Your task to perform on an android device: Show the shopping cart on ebay.com. Add "razer blade" to the cart on ebay.com Image 0: 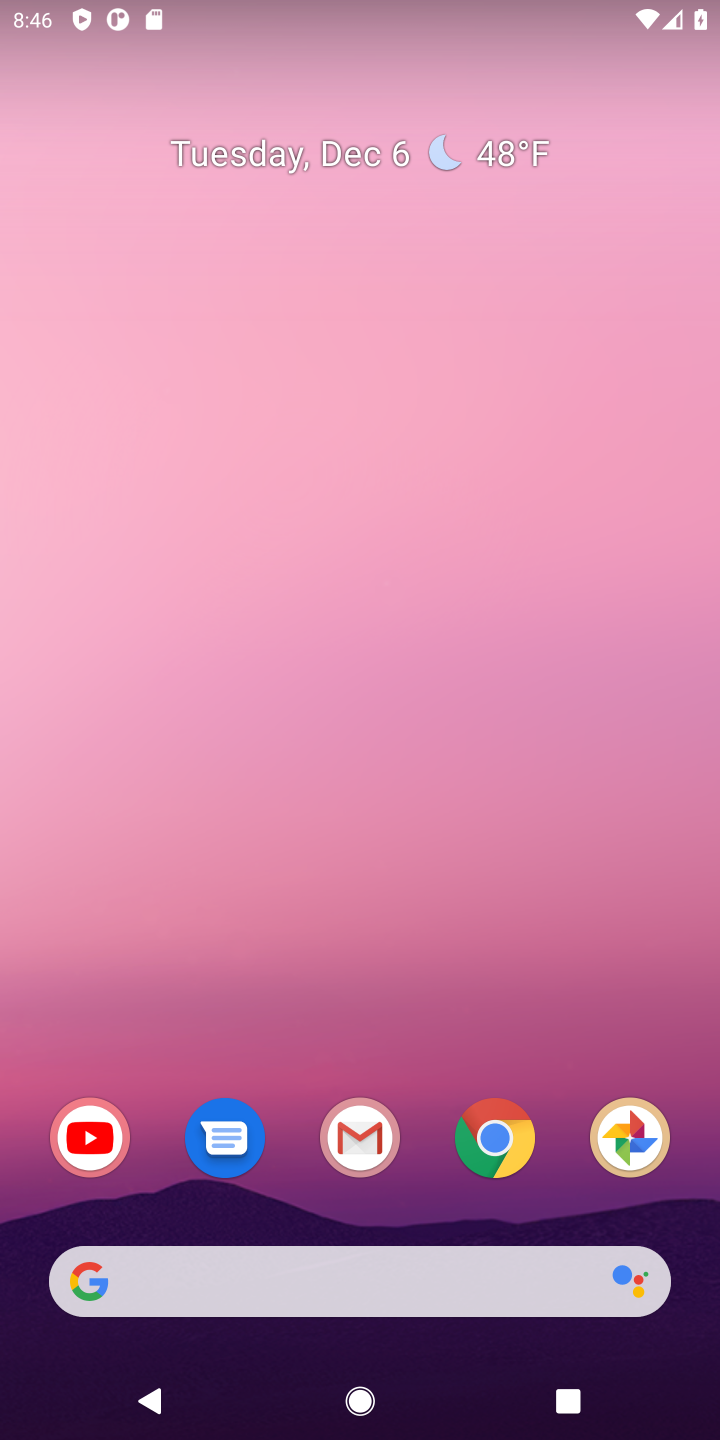
Step 0: click (498, 1141)
Your task to perform on an android device: Show the shopping cart on ebay.com. Add "razer blade" to the cart on ebay.com Image 1: 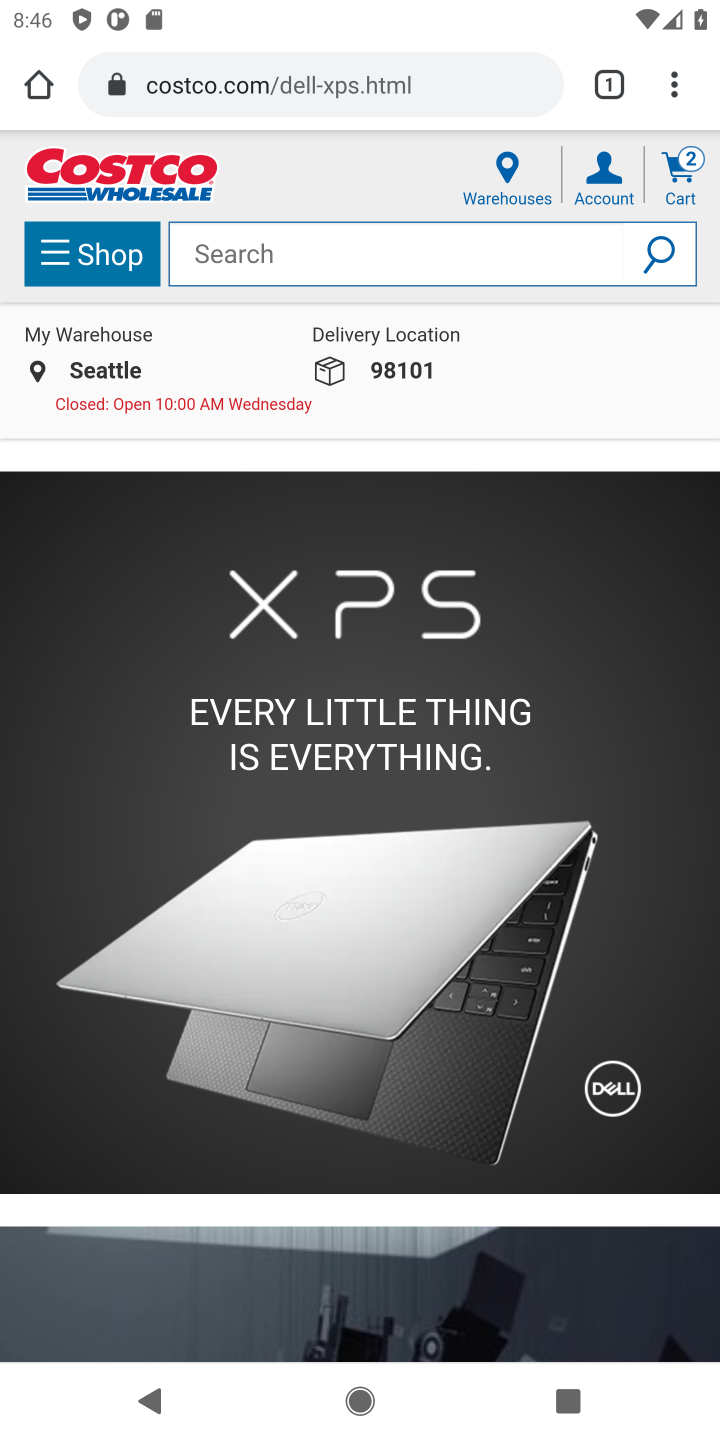
Step 1: click (317, 87)
Your task to perform on an android device: Show the shopping cart on ebay.com. Add "razer blade" to the cart on ebay.com Image 2: 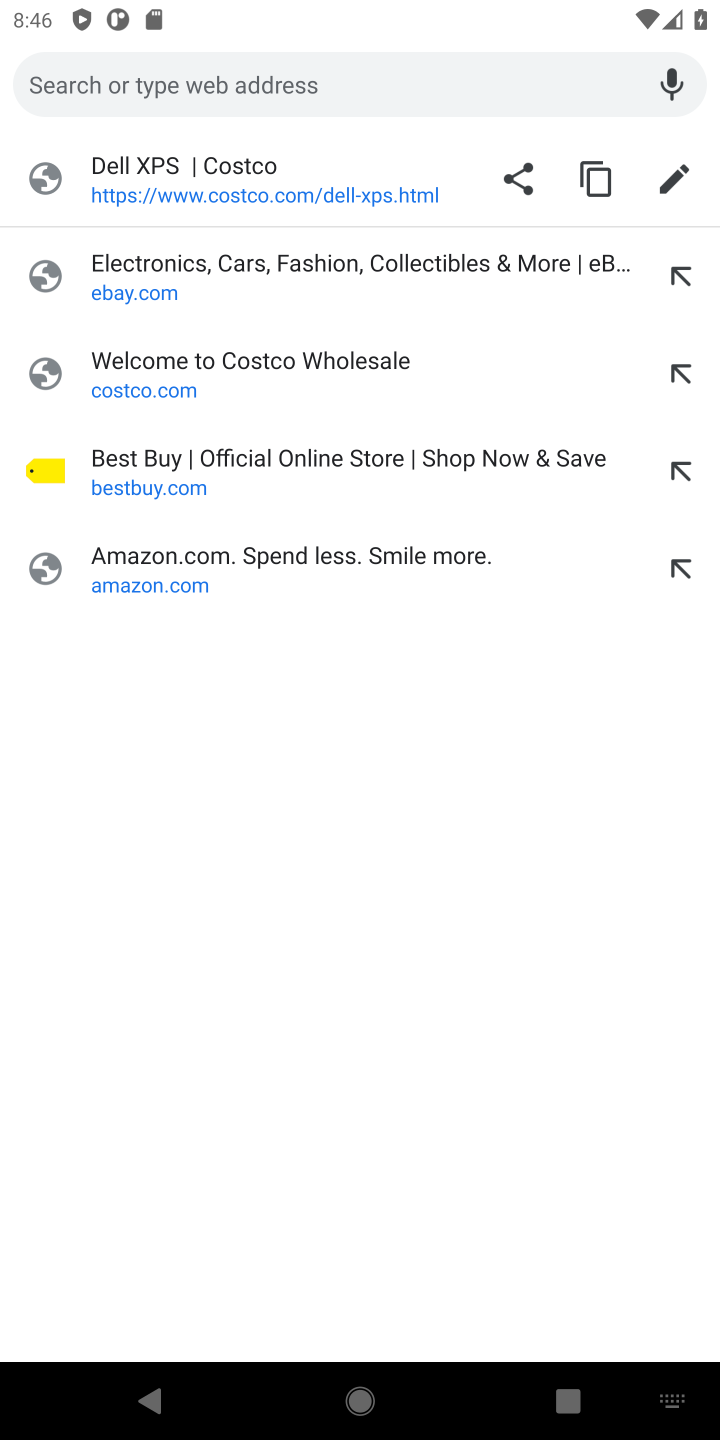
Step 2: click (138, 288)
Your task to perform on an android device: Show the shopping cart on ebay.com. Add "razer blade" to the cart on ebay.com Image 3: 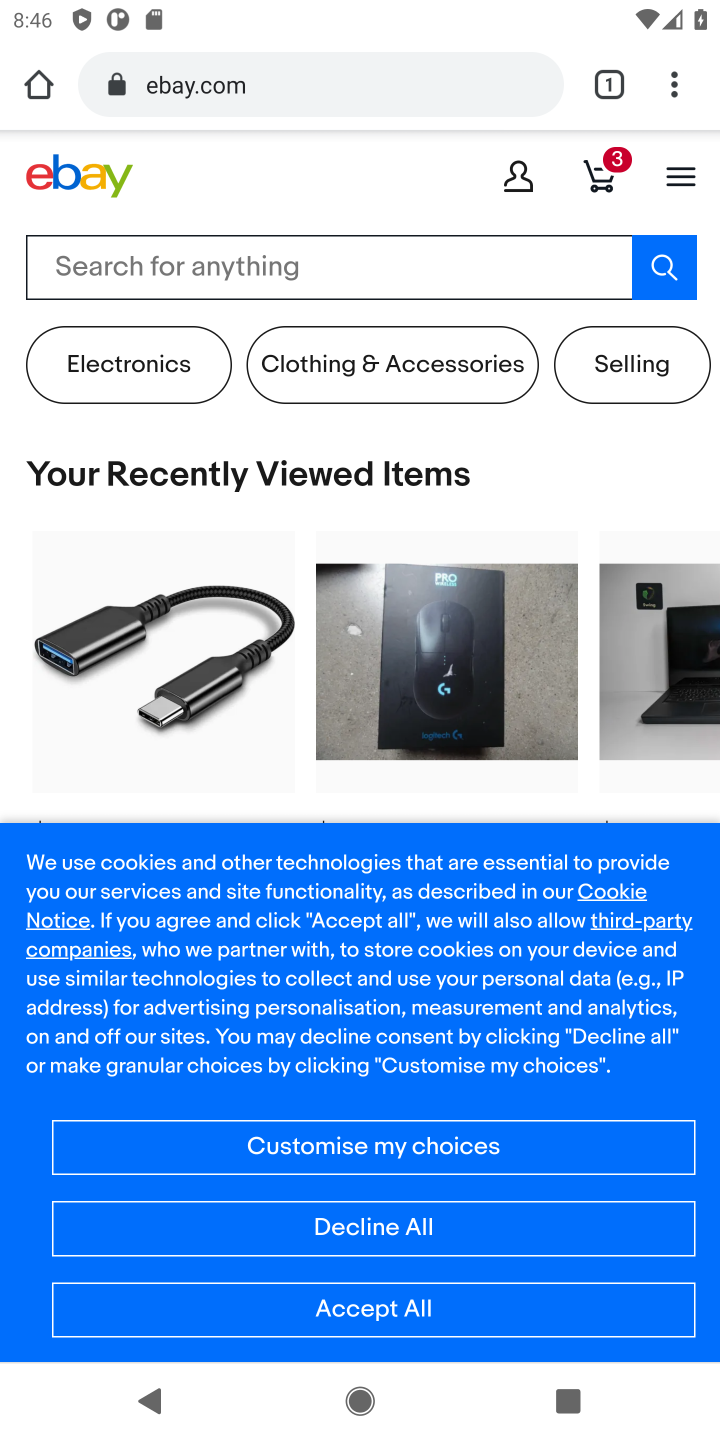
Step 3: click (607, 185)
Your task to perform on an android device: Show the shopping cart on ebay.com. Add "razer blade" to the cart on ebay.com Image 4: 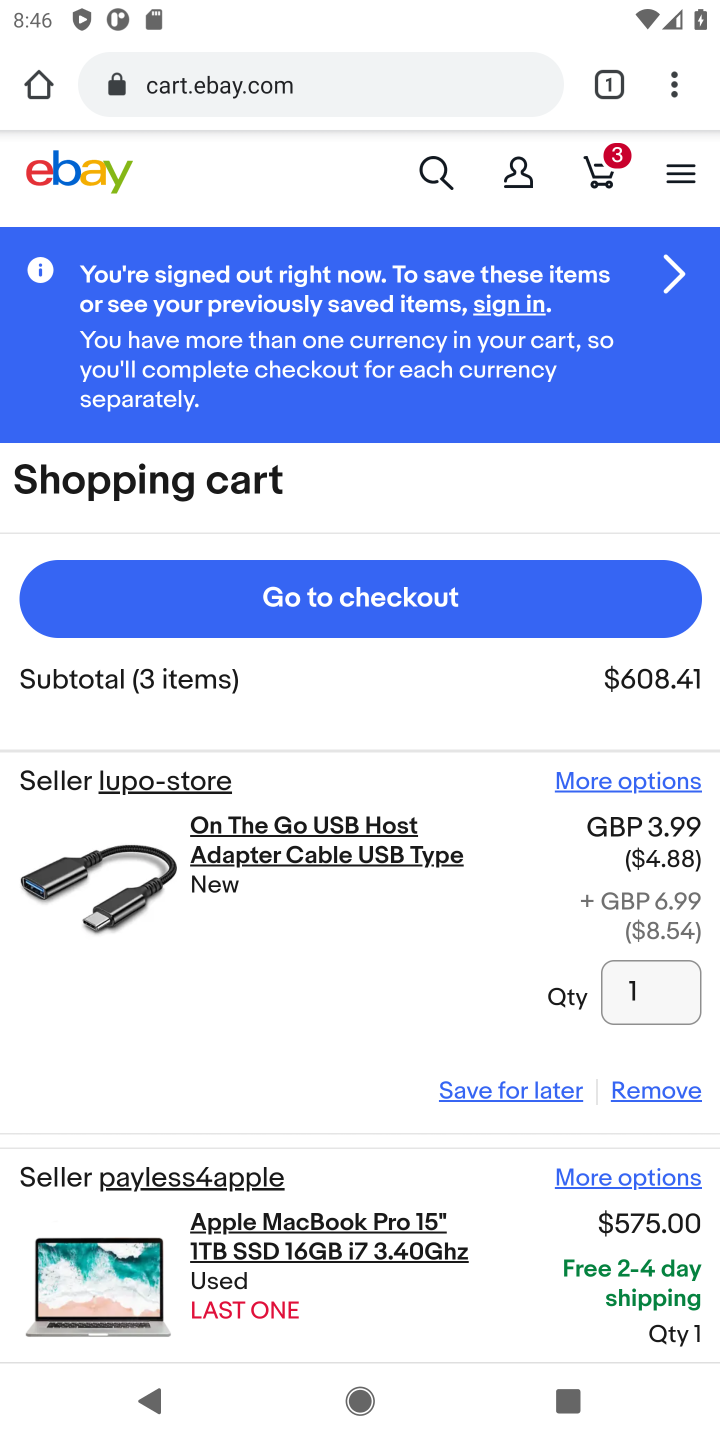
Step 4: click (437, 159)
Your task to perform on an android device: Show the shopping cart on ebay.com. Add "razer blade" to the cart on ebay.com Image 5: 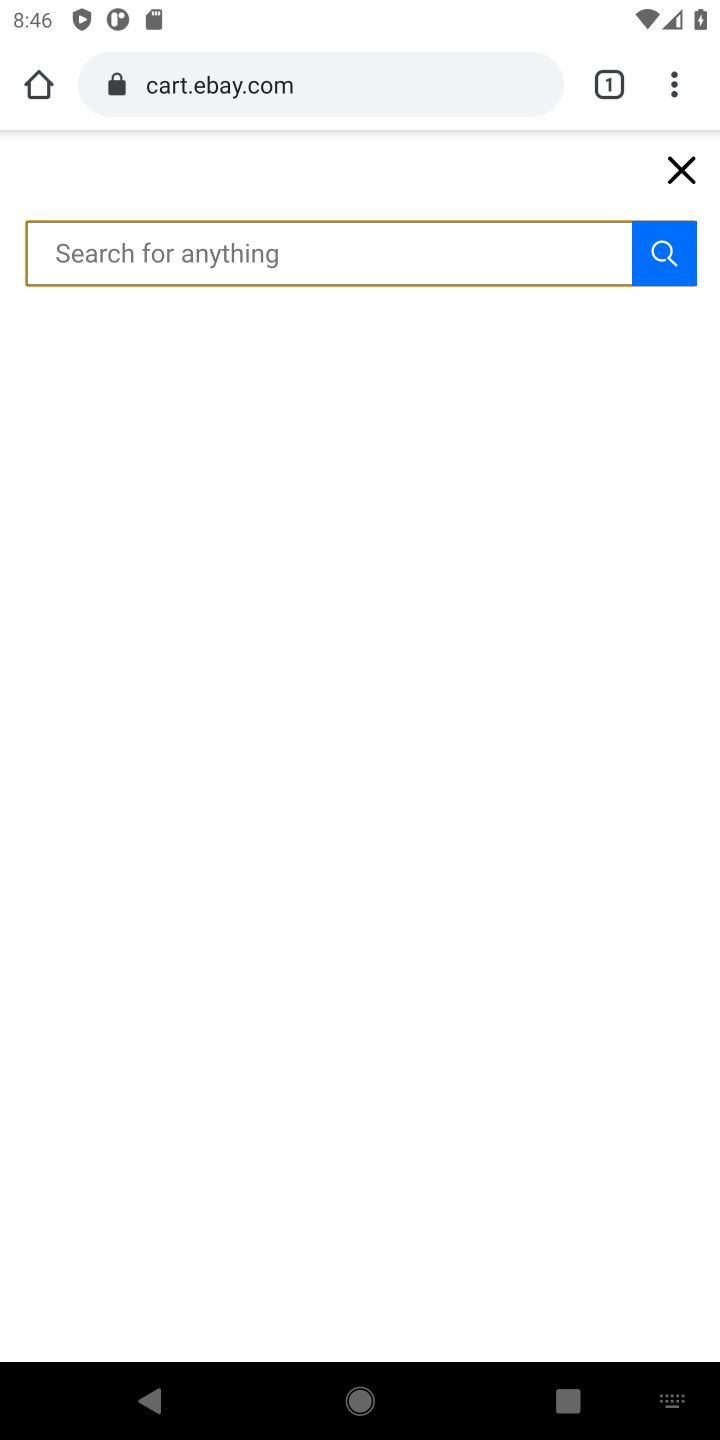
Step 5: type "razer blade"
Your task to perform on an android device: Show the shopping cart on ebay.com. Add "razer blade" to the cart on ebay.com Image 6: 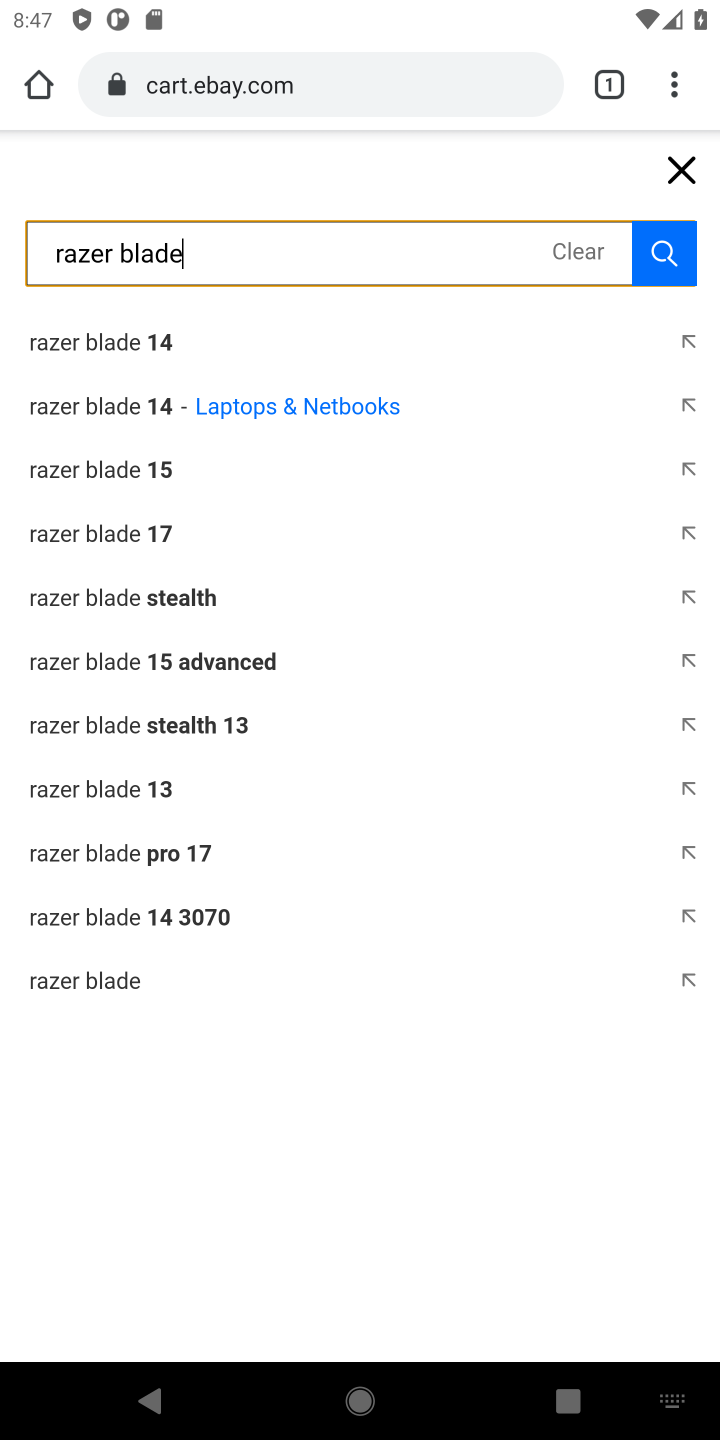
Step 6: click (116, 351)
Your task to perform on an android device: Show the shopping cart on ebay.com. Add "razer blade" to the cart on ebay.com Image 7: 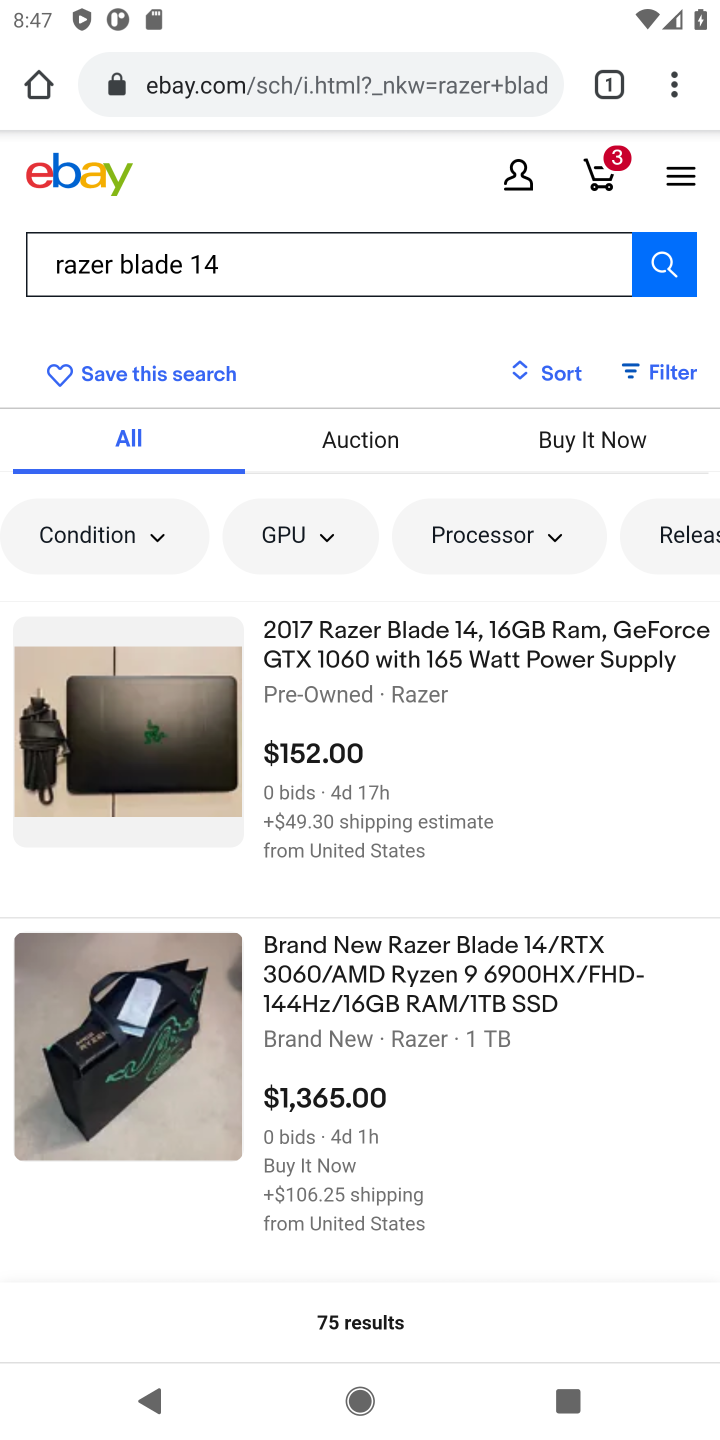
Step 7: click (335, 648)
Your task to perform on an android device: Show the shopping cart on ebay.com. Add "razer blade" to the cart on ebay.com Image 8: 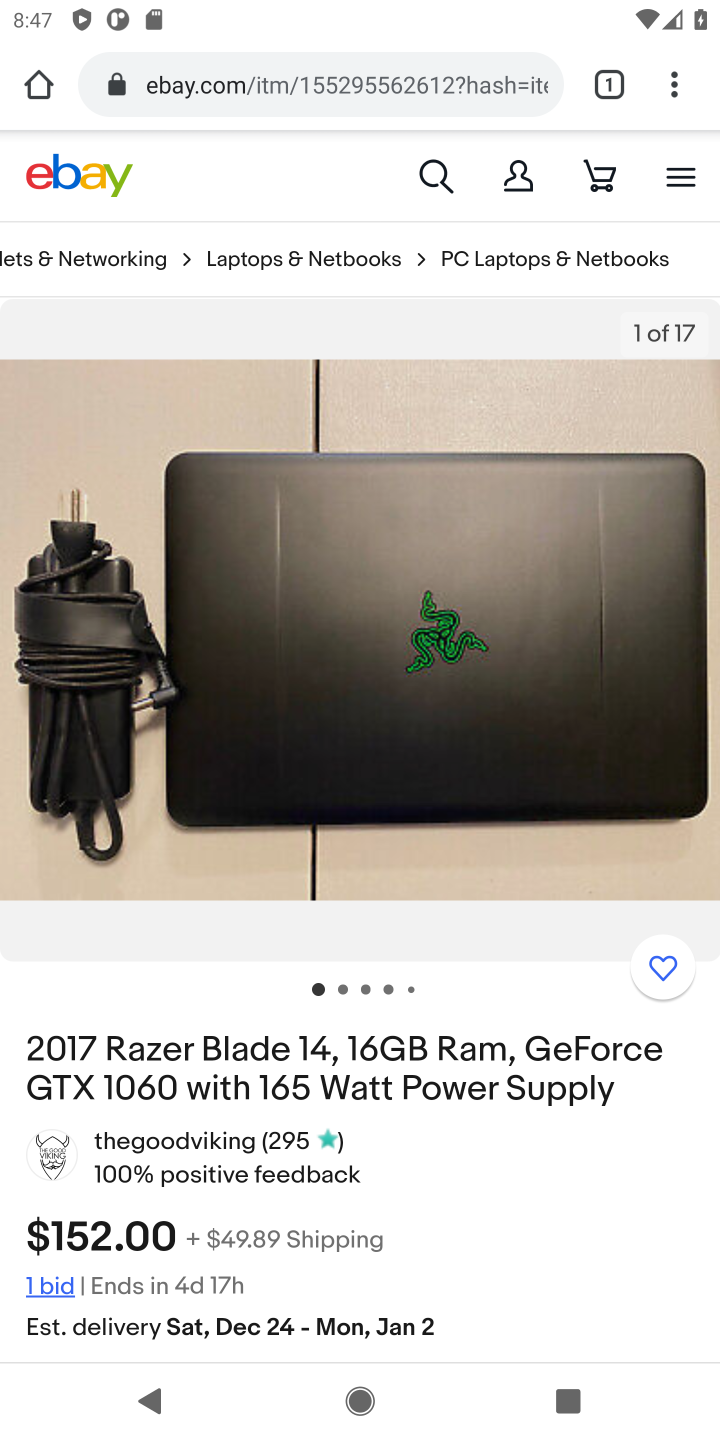
Step 8: drag from (411, 1143) to (369, 343)
Your task to perform on an android device: Show the shopping cart on ebay.com. Add "razer blade" to the cart on ebay.com Image 9: 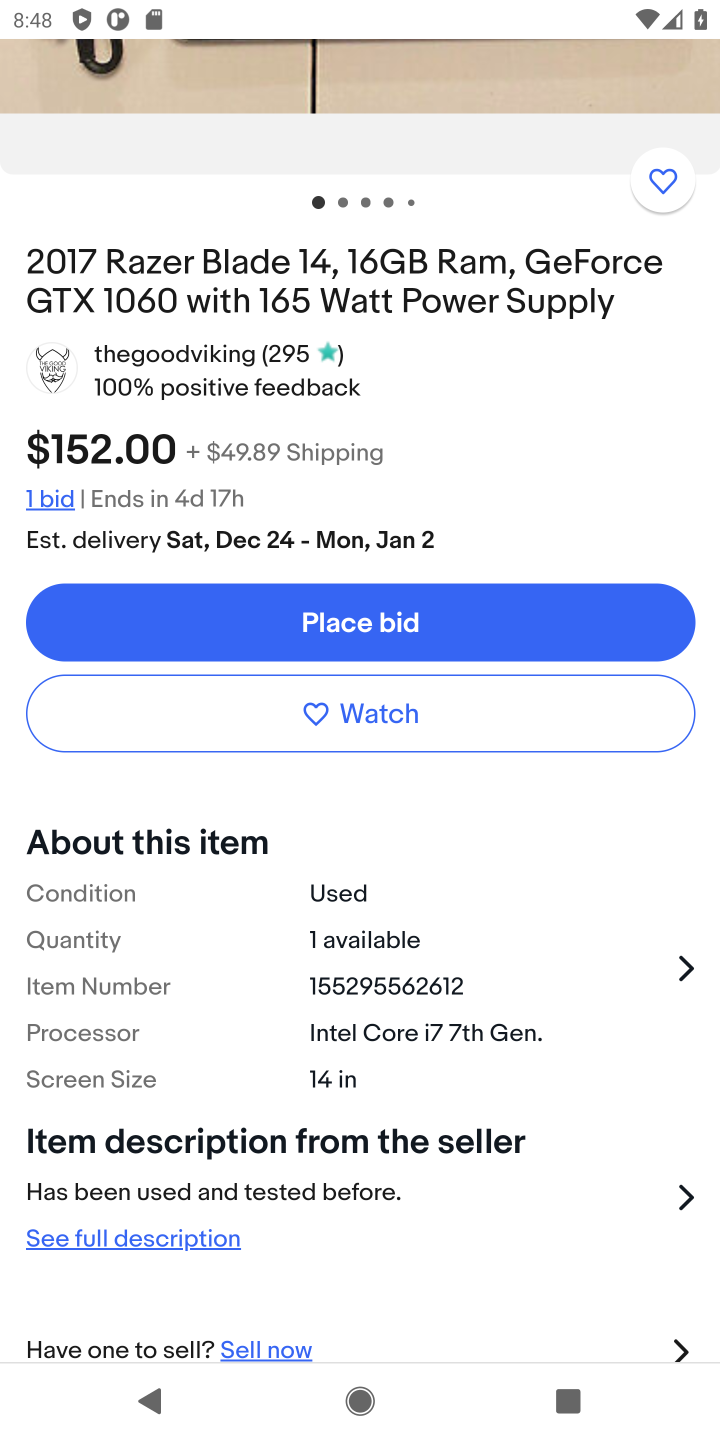
Step 9: press back button
Your task to perform on an android device: Show the shopping cart on ebay.com. Add "razer blade" to the cart on ebay.com Image 10: 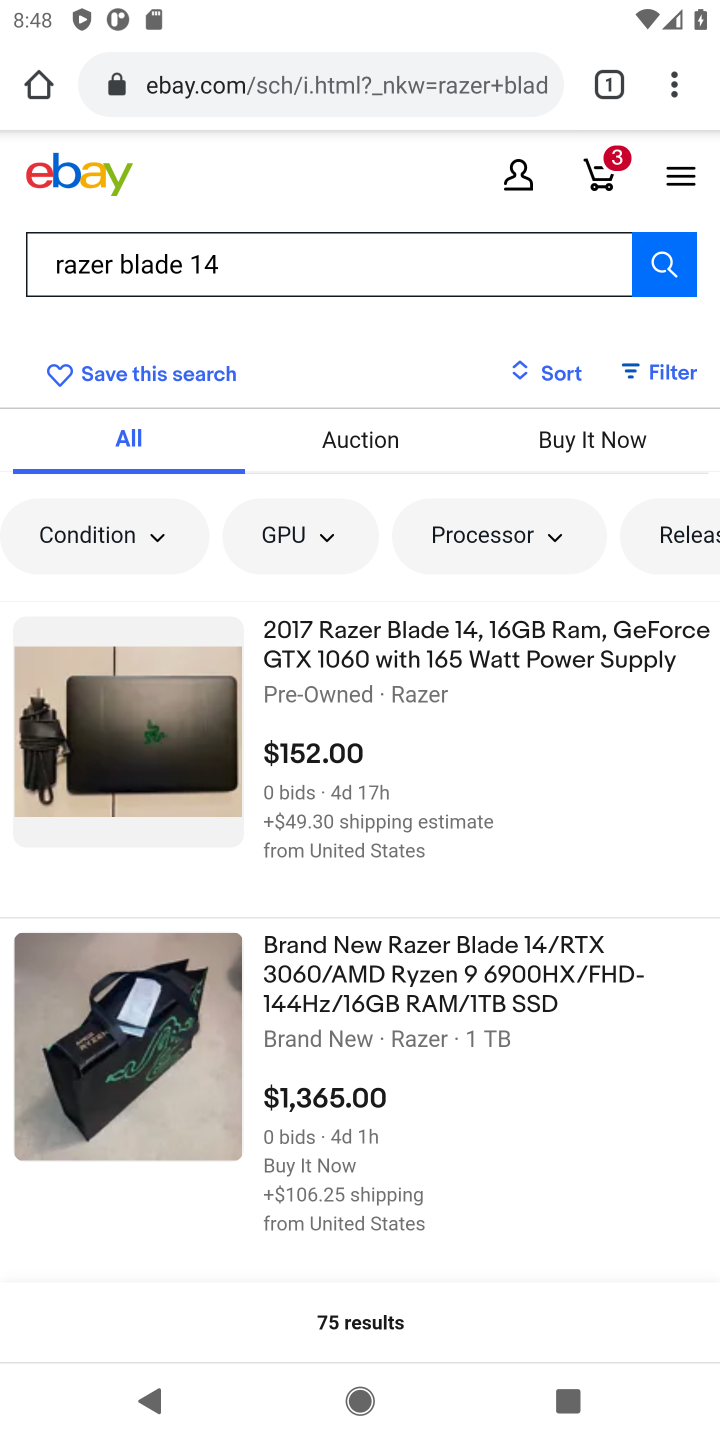
Step 10: drag from (425, 1108) to (389, 475)
Your task to perform on an android device: Show the shopping cart on ebay.com. Add "razer blade" to the cart on ebay.com Image 11: 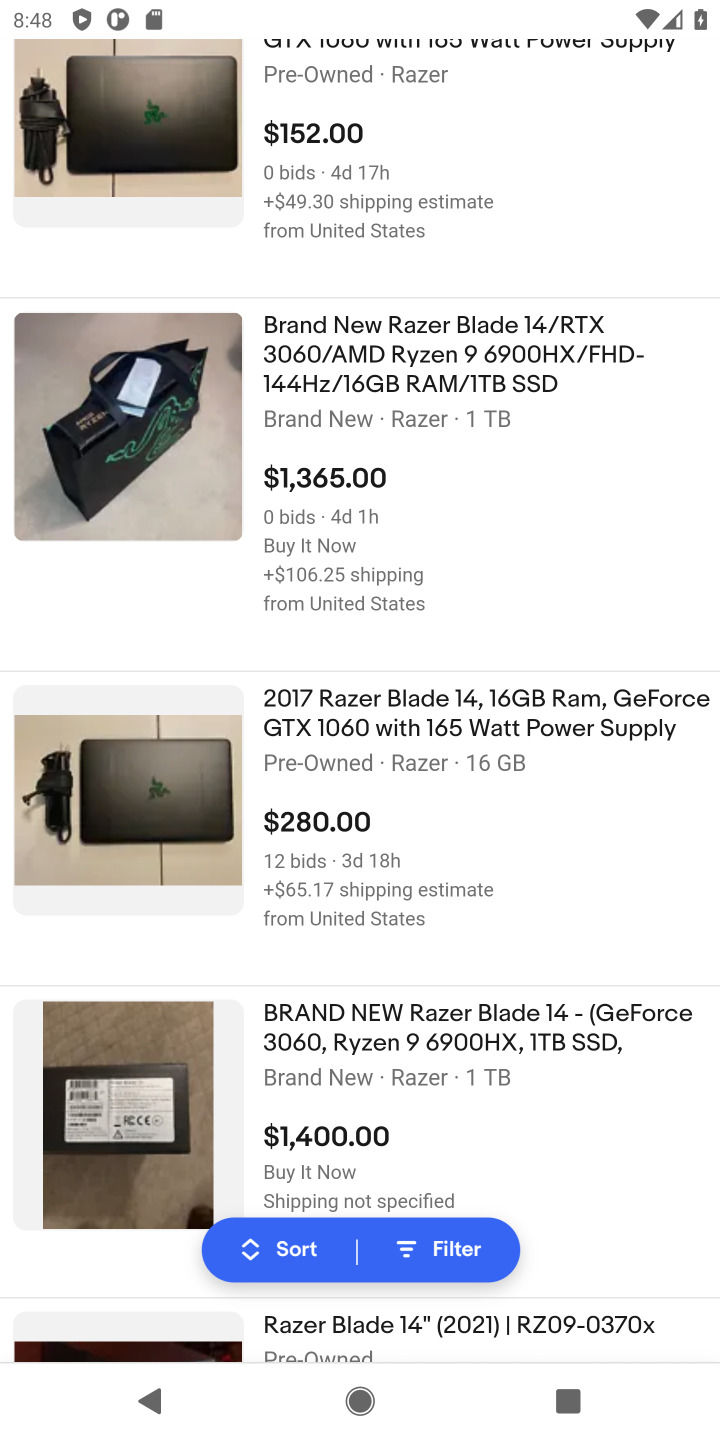
Step 11: drag from (375, 1013) to (346, 526)
Your task to perform on an android device: Show the shopping cart on ebay.com. Add "razer blade" to the cart on ebay.com Image 12: 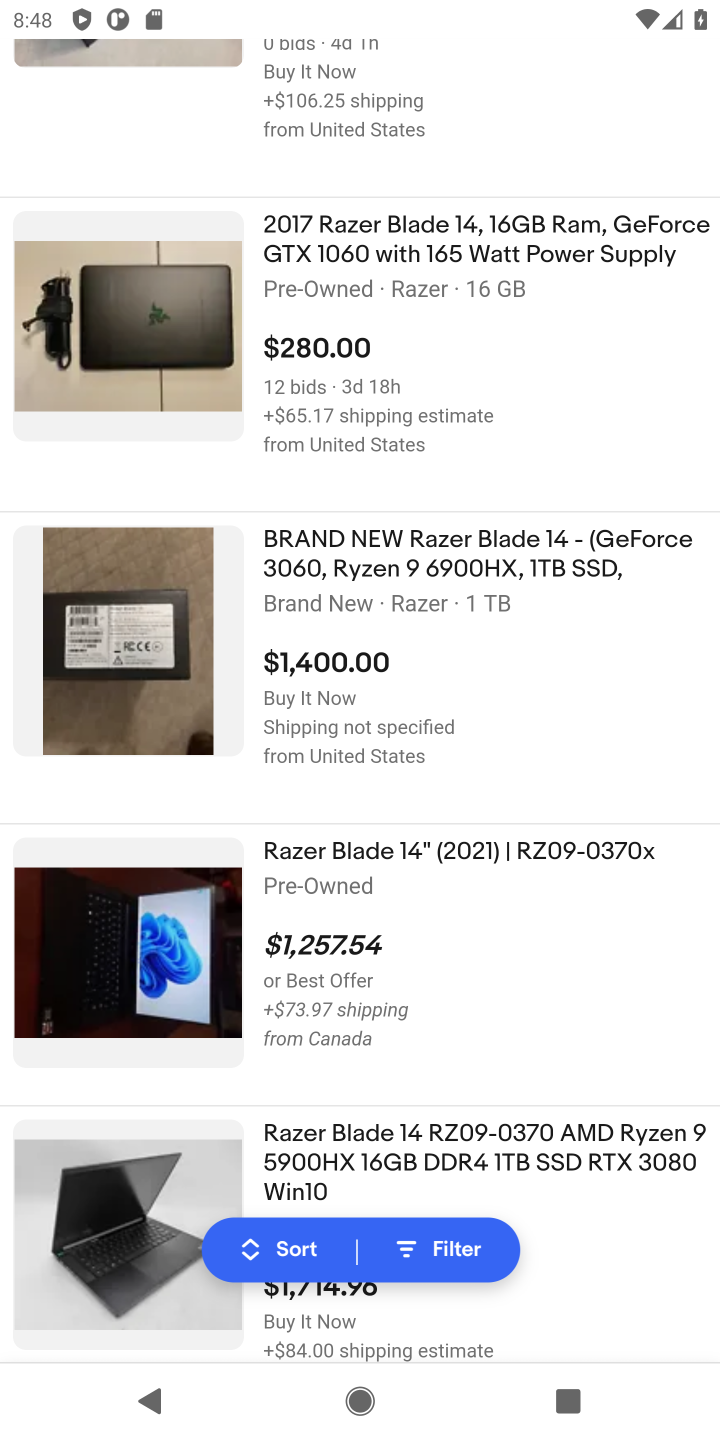
Step 12: click (340, 564)
Your task to perform on an android device: Show the shopping cart on ebay.com. Add "razer blade" to the cart on ebay.com Image 13: 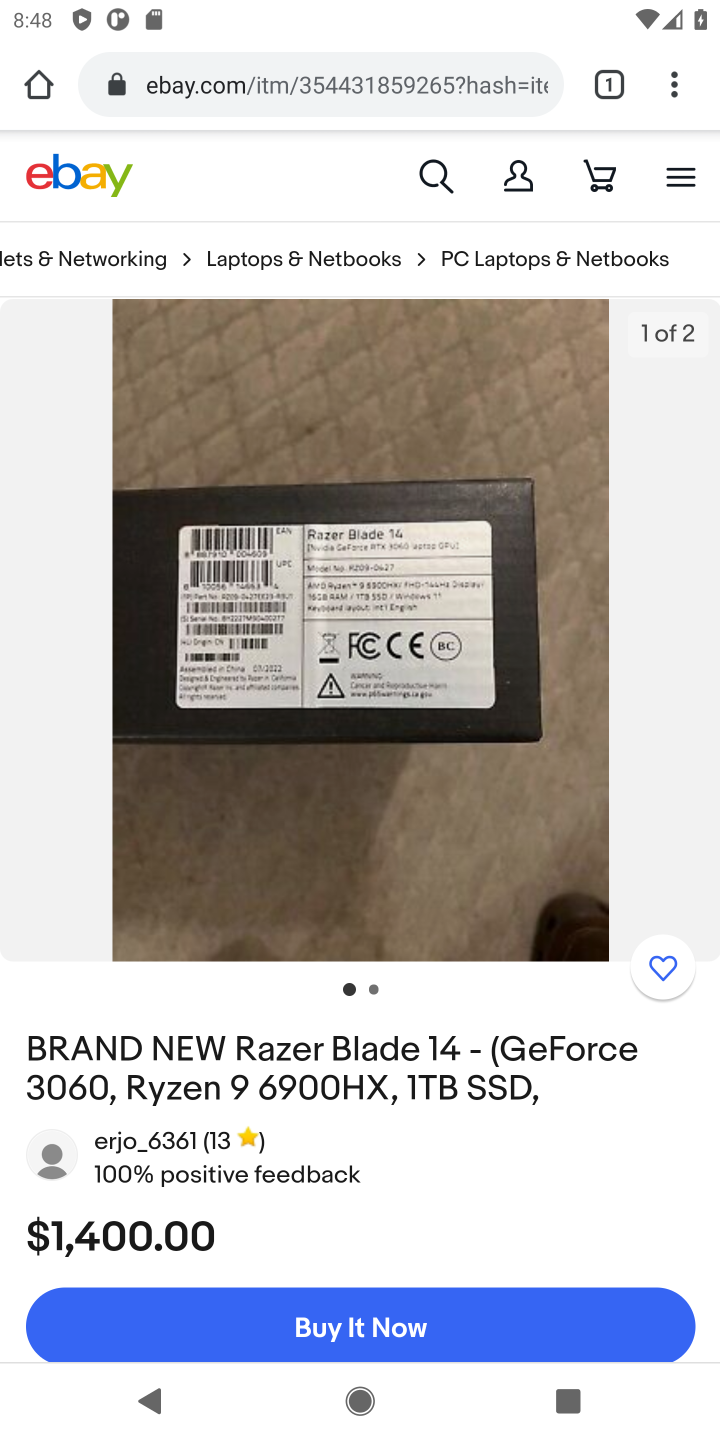
Step 13: drag from (365, 950) to (329, 355)
Your task to perform on an android device: Show the shopping cart on ebay.com. Add "razer blade" to the cart on ebay.com Image 14: 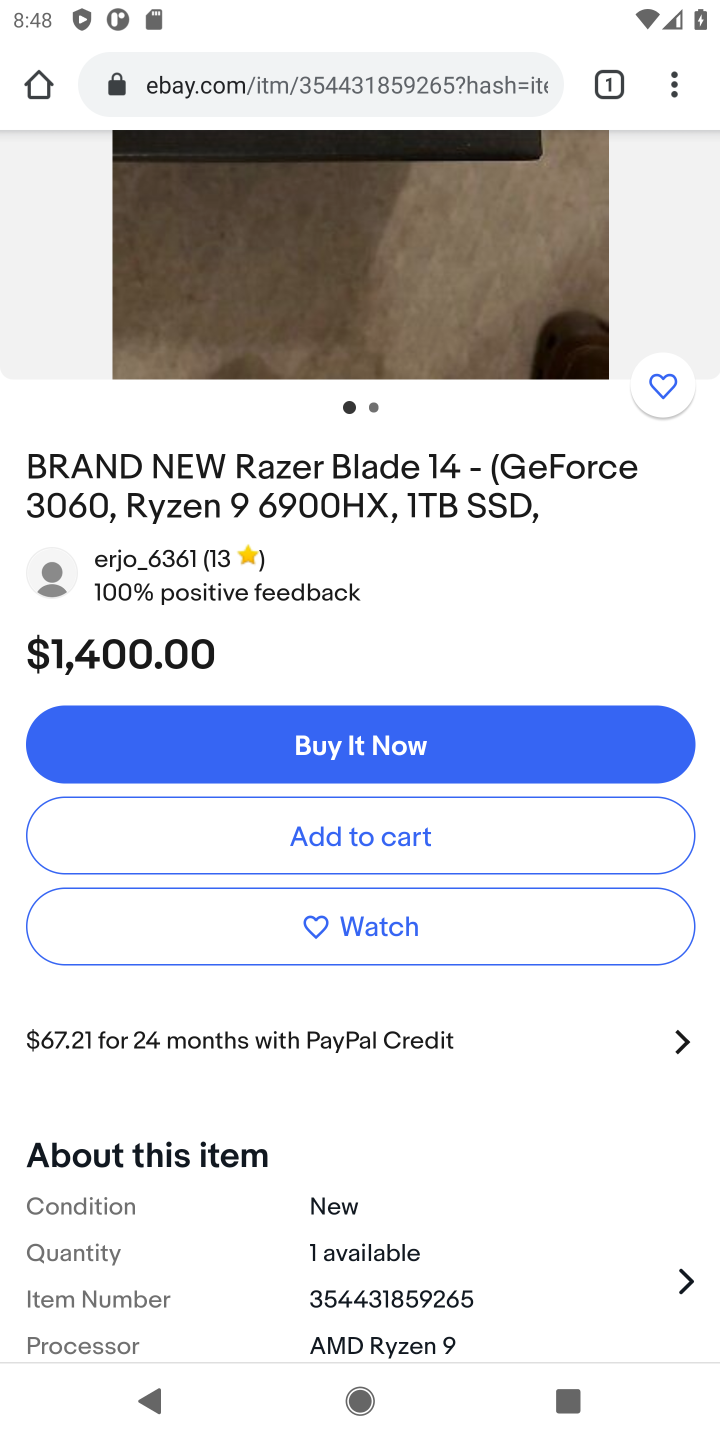
Step 14: click (297, 826)
Your task to perform on an android device: Show the shopping cart on ebay.com. Add "razer blade" to the cart on ebay.com Image 15: 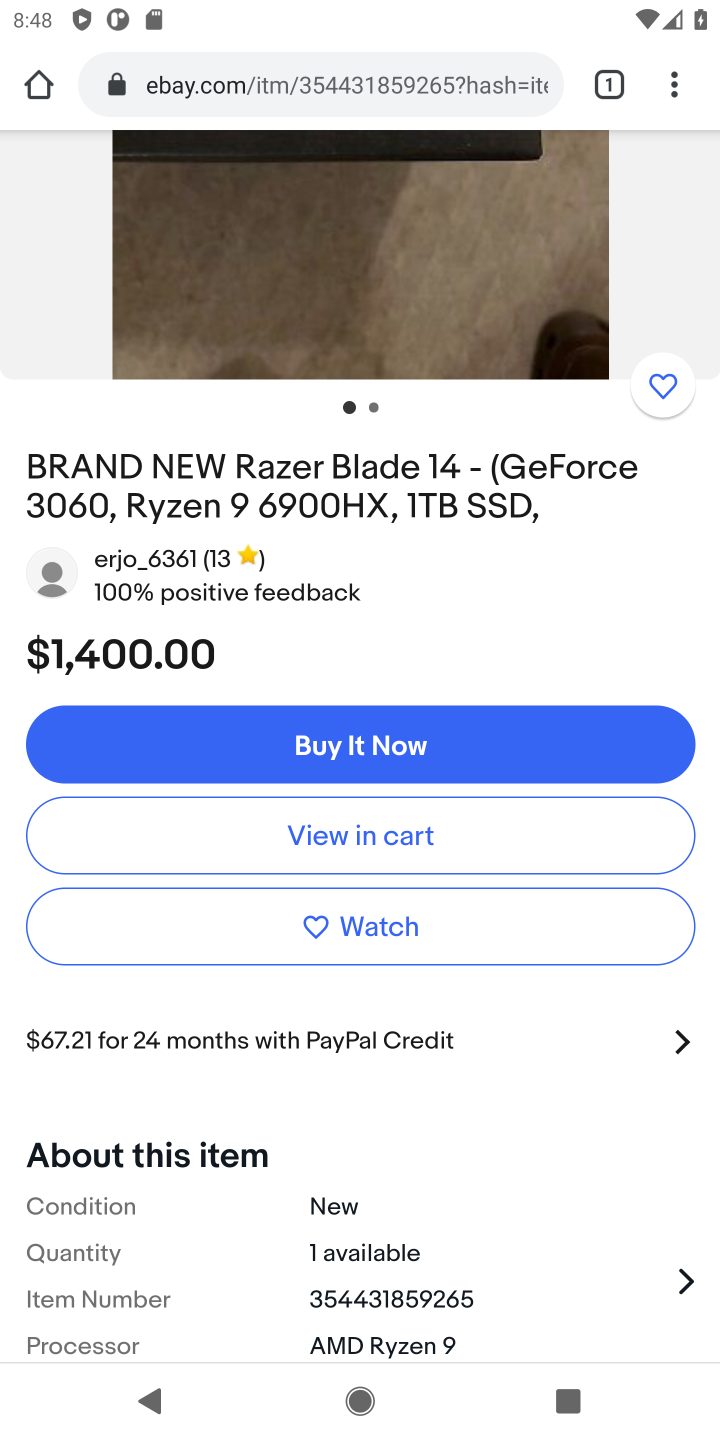
Step 15: task complete